Your task to perform on an android device: Is it going to rain today? Image 0: 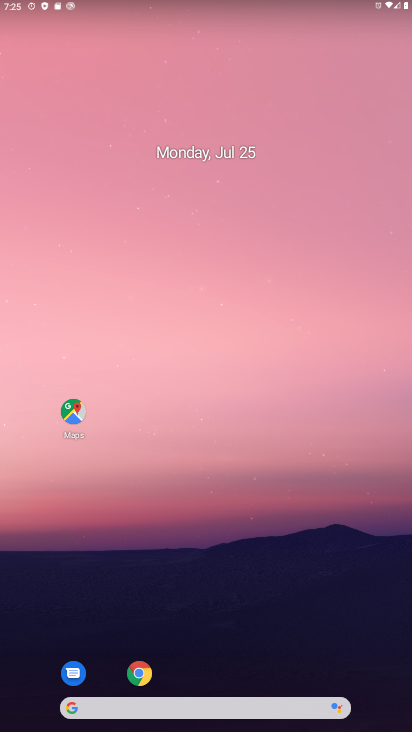
Step 0: drag from (369, 656) to (219, 34)
Your task to perform on an android device: Is it going to rain today? Image 1: 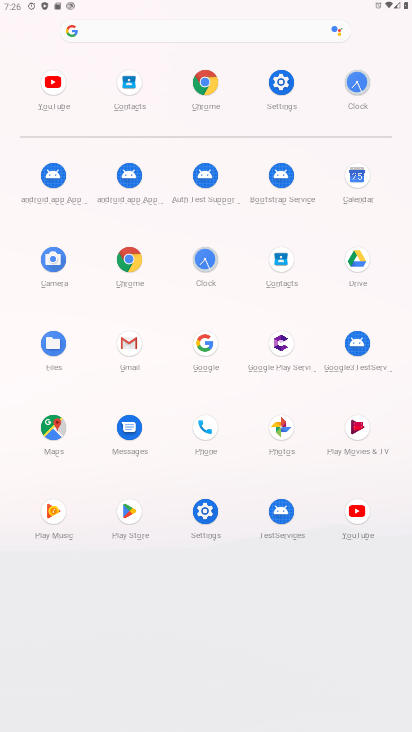
Step 1: click (188, 344)
Your task to perform on an android device: Is it going to rain today? Image 2: 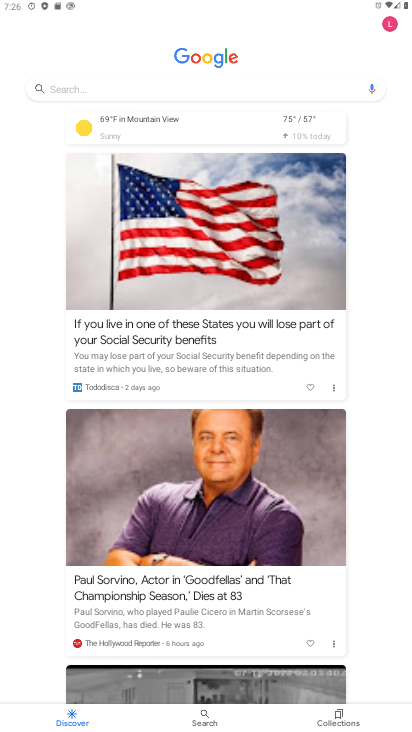
Step 2: click (57, 92)
Your task to perform on an android device: Is it going to rain today? Image 3: 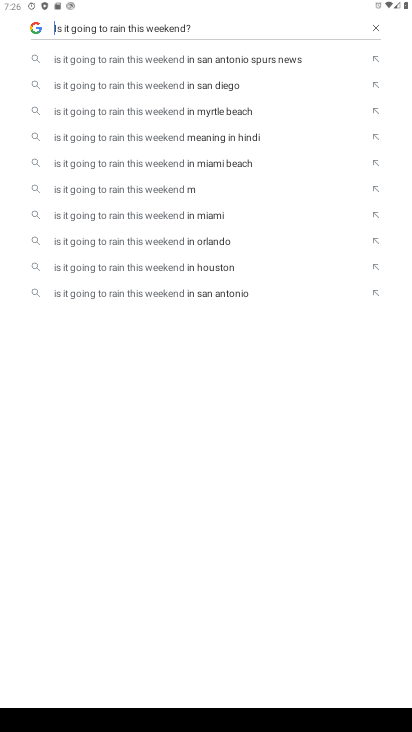
Step 3: click (377, 25)
Your task to perform on an android device: Is it going to rain today? Image 4: 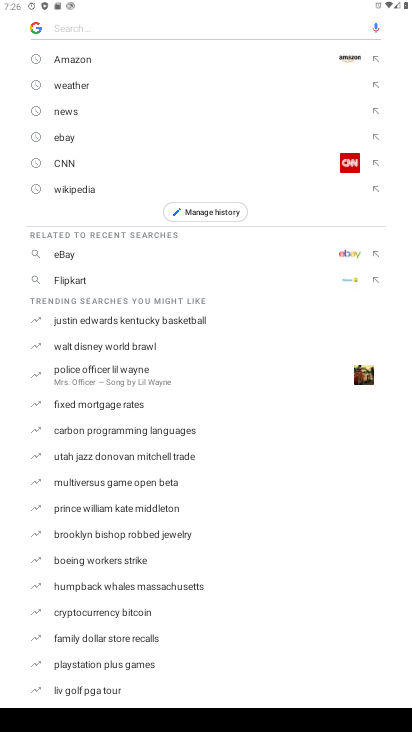
Step 4: type "Is it going to rain today?"
Your task to perform on an android device: Is it going to rain today? Image 5: 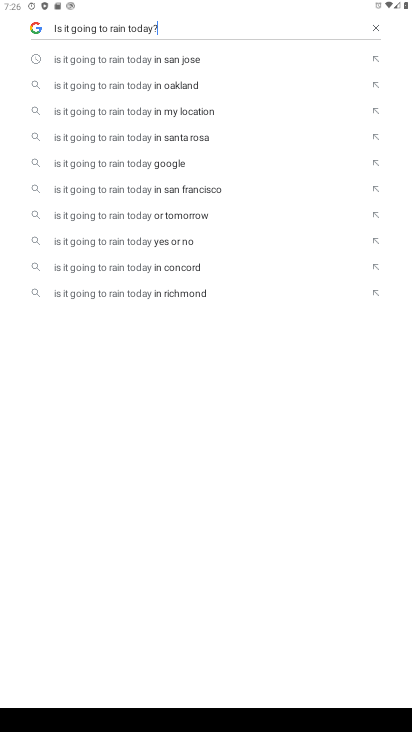
Step 5: click (125, 168)
Your task to perform on an android device: Is it going to rain today? Image 6: 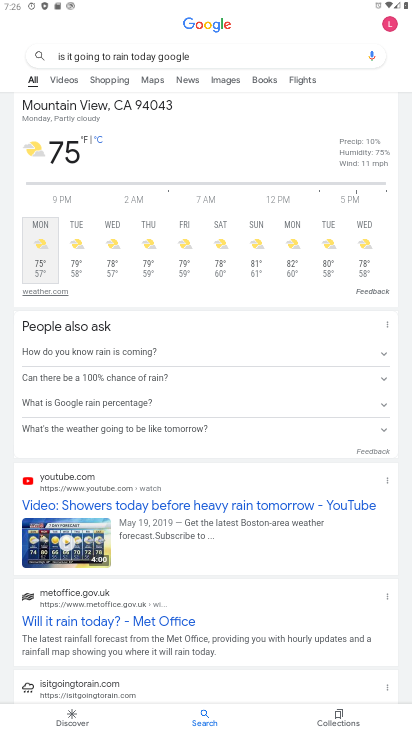
Step 6: task complete